Your task to perform on an android device: Open notification settings Image 0: 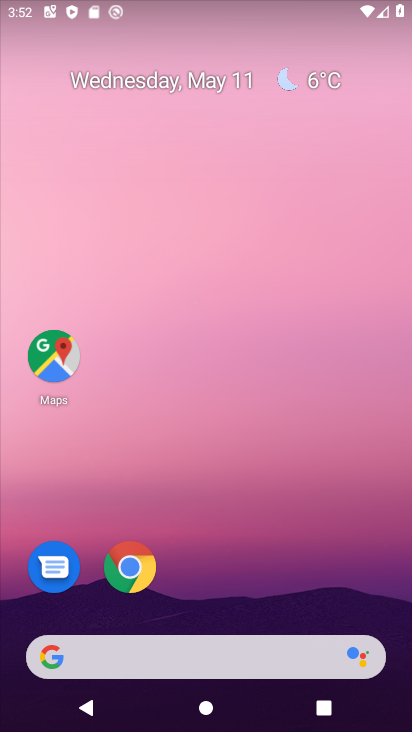
Step 0: drag from (251, 585) to (297, 199)
Your task to perform on an android device: Open notification settings Image 1: 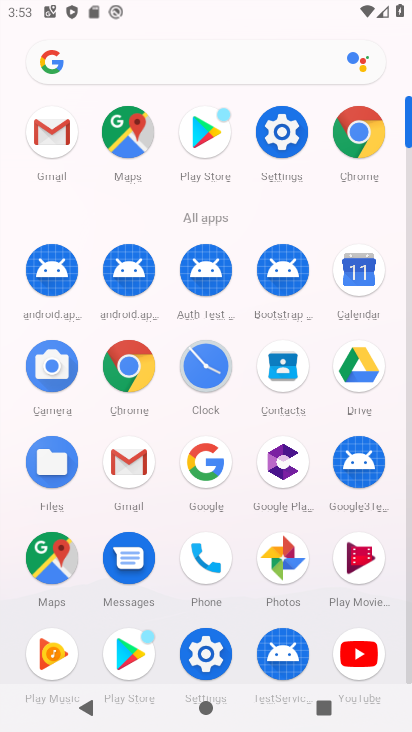
Step 1: click (286, 130)
Your task to perform on an android device: Open notification settings Image 2: 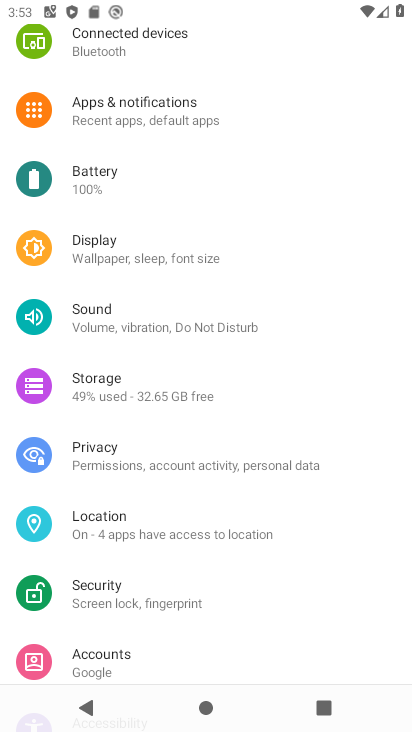
Step 2: click (122, 107)
Your task to perform on an android device: Open notification settings Image 3: 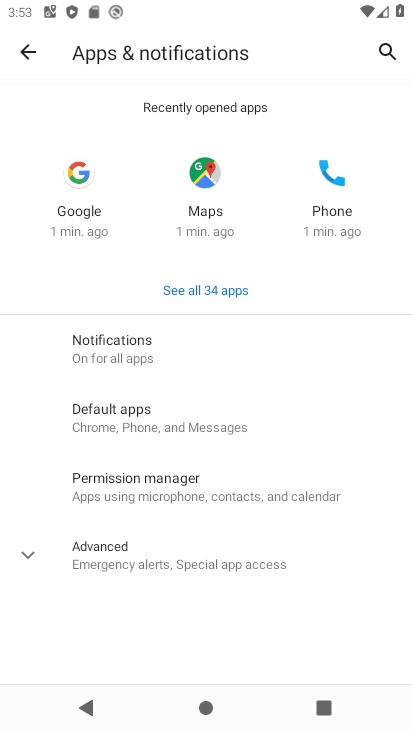
Step 3: click (94, 333)
Your task to perform on an android device: Open notification settings Image 4: 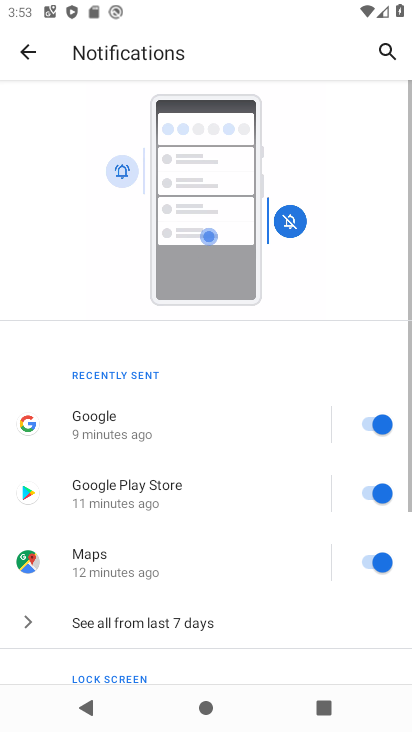
Step 4: task complete